Your task to perform on an android device: Clear the cart on walmart. Add "logitech g pro" to the cart on walmart, then select checkout. Image 0: 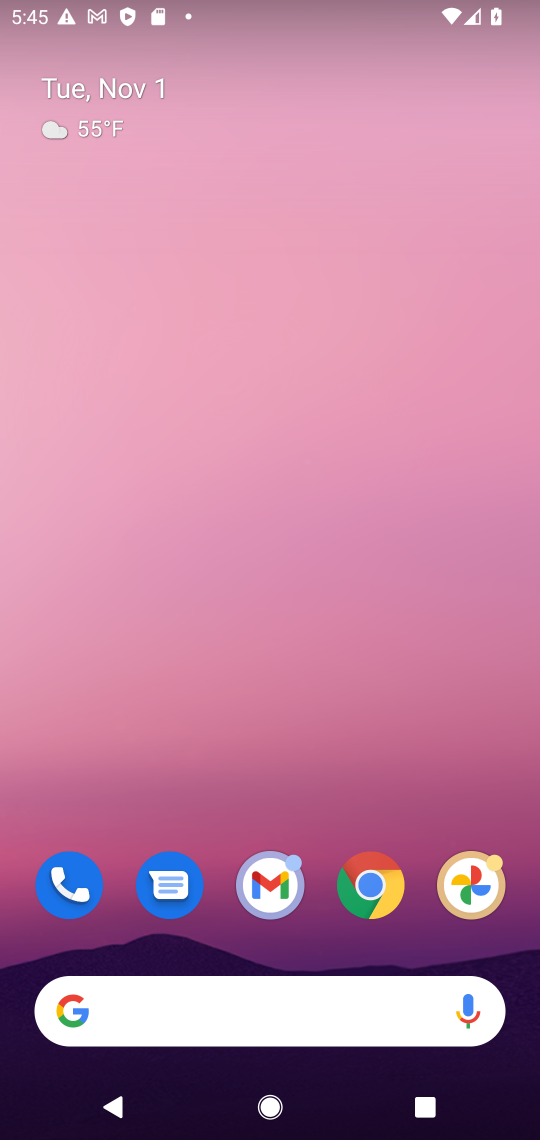
Step 0: click (371, 878)
Your task to perform on an android device: Clear the cart on walmart. Add "logitech g pro" to the cart on walmart, then select checkout. Image 1: 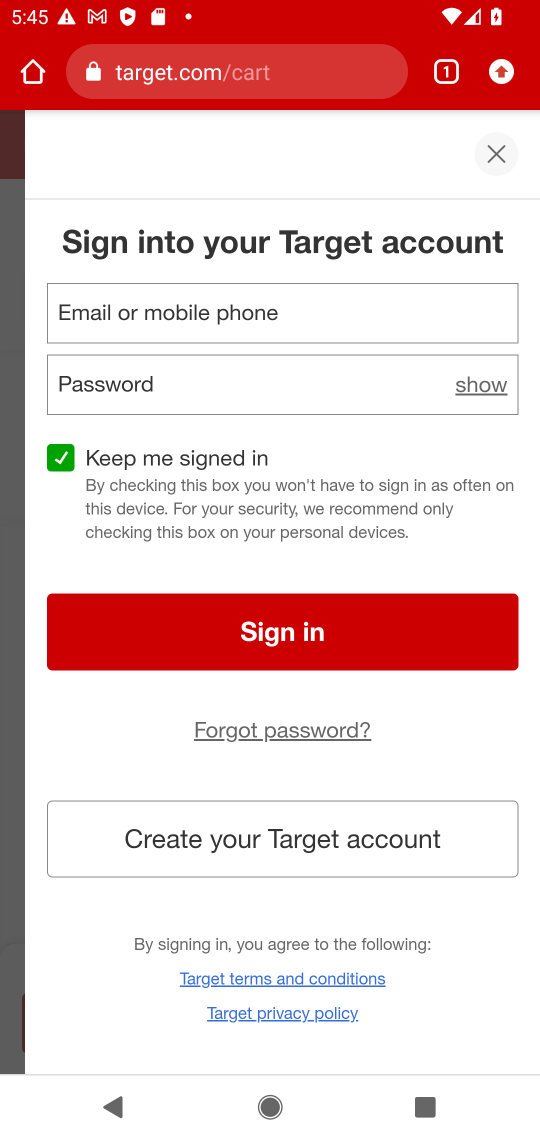
Step 1: click (291, 53)
Your task to perform on an android device: Clear the cart on walmart. Add "logitech g pro" to the cart on walmart, then select checkout. Image 2: 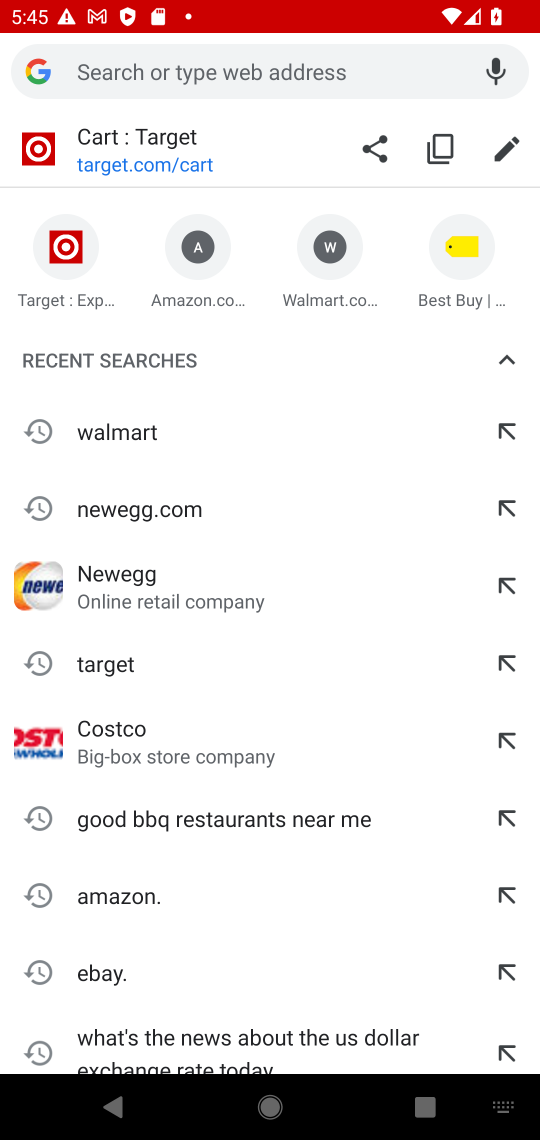
Step 2: type "walmart"
Your task to perform on an android device: Clear the cart on walmart. Add "logitech g pro" to the cart on walmart, then select checkout. Image 3: 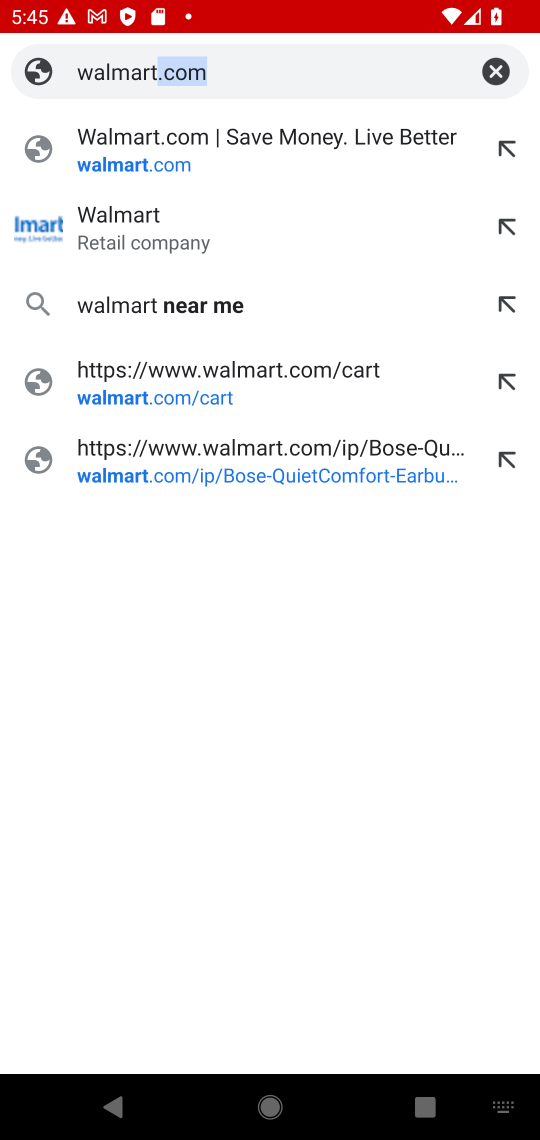
Step 3: click (139, 226)
Your task to perform on an android device: Clear the cart on walmart. Add "logitech g pro" to the cart on walmart, then select checkout. Image 4: 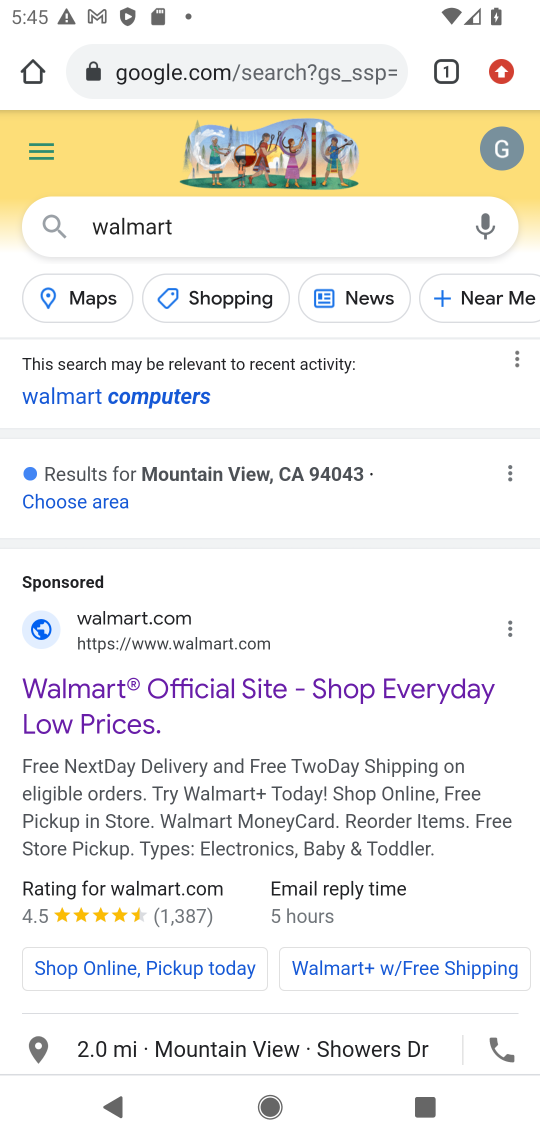
Step 4: click (199, 691)
Your task to perform on an android device: Clear the cart on walmart. Add "logitech g pro" to the cart on walmart, then select checkout. Image 5: 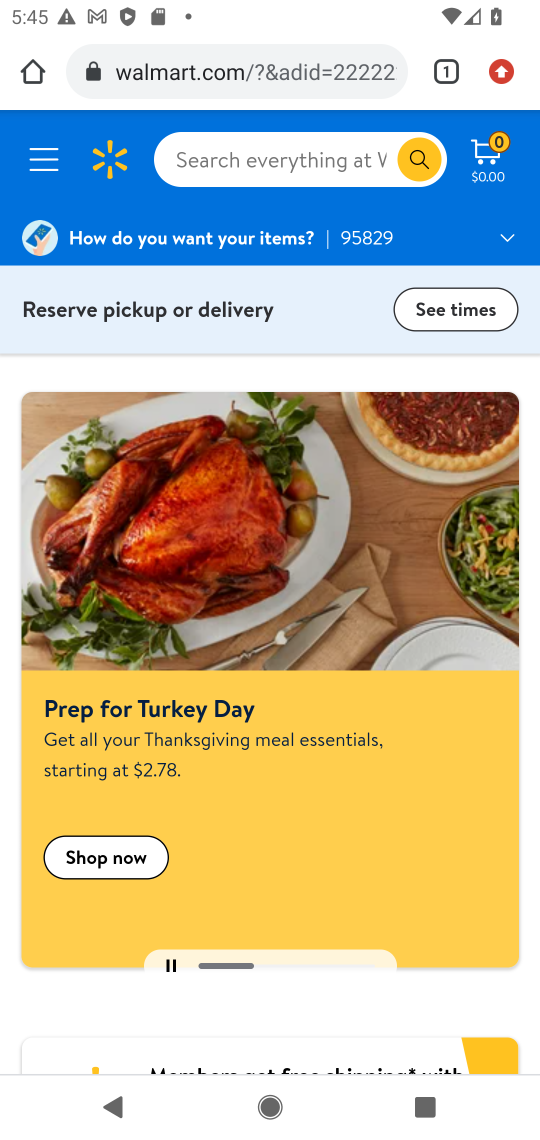
Step 5: click (228, 156)
Your task to perform on an android device: Clear the cart on walmart. Add "logitech g pro" to the cart on walmart, then select checkout. Image 6: 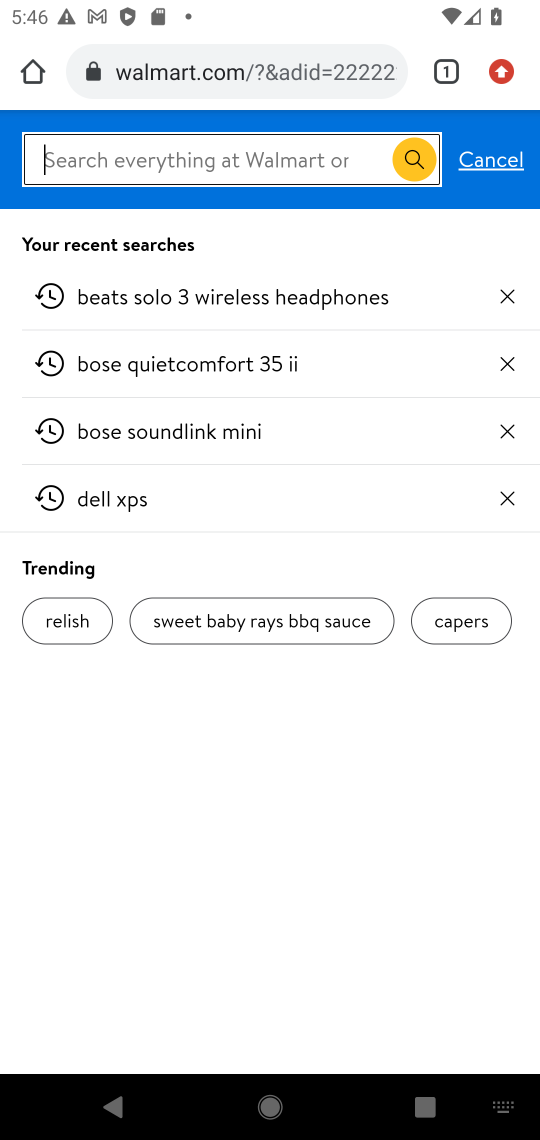
Step 6: type "logitech g pro"
Your task to perform on an android device: Clear the cart on walmart. Add "logitech g pro" to the cart on walmart, then select checkout. Image 7: 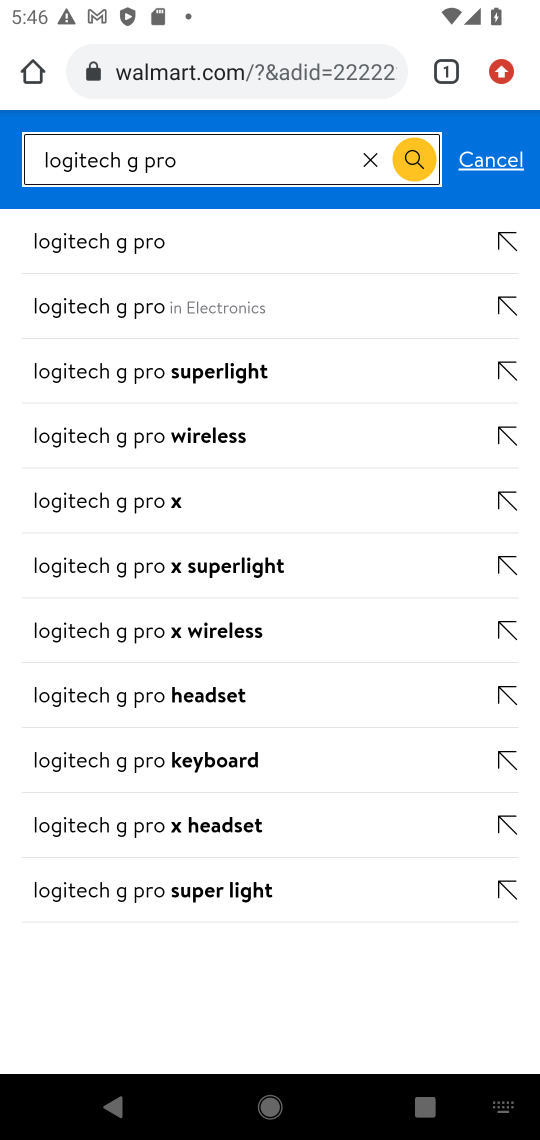
Step 7: click (102, 228)
Your task to perform on an android device: Clear the cart on walmart. Add "logitech g pro" to the cart on walmart, then select checkout. Image 8: 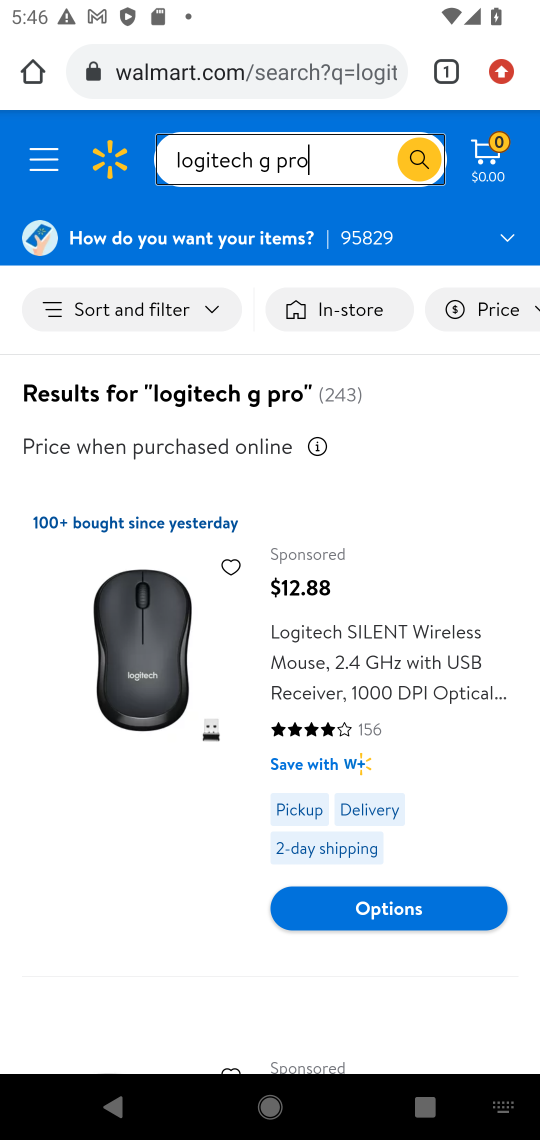
Step 8: drag from (240, 943) to (255, 734)
Your task to perform on an android device: Clear the cart on walmart. Add "logitech g pro" to the cart on walmart, then select checkout. Image 9: 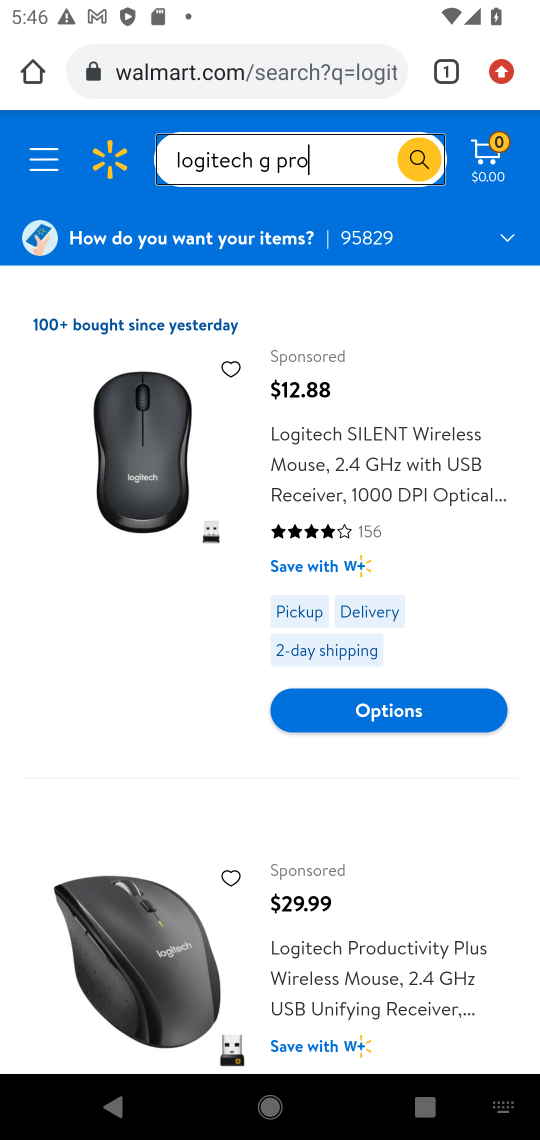
Step 9: drag from (227, 874) to (246, 697)
Your task to perform on an android device: Clear the cart on walmart. Add "logitech g pro" to the cart on walmart, then select checkout. Image 10: 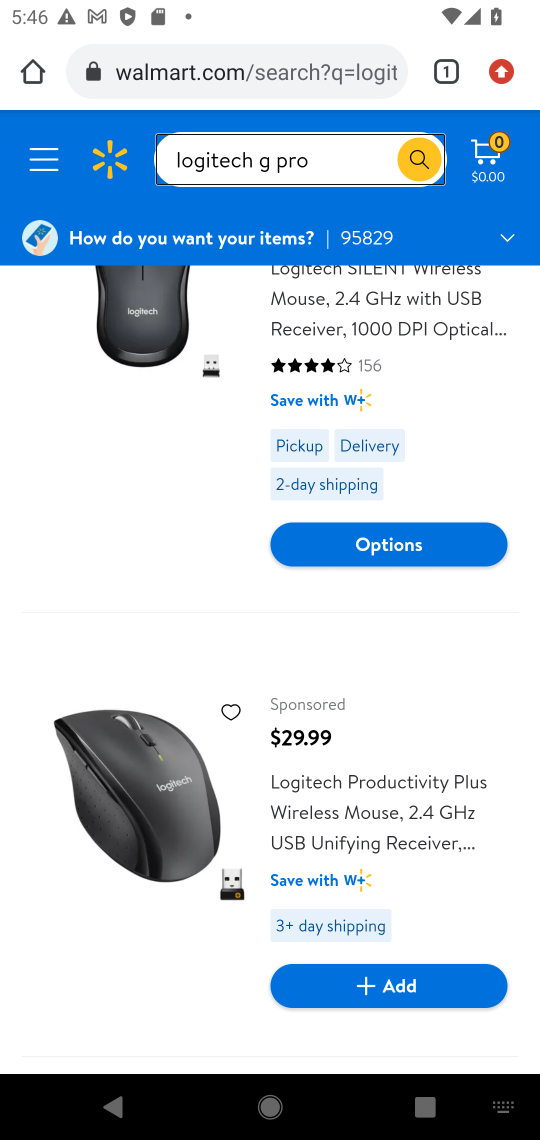
Step 10: drag from (228, 788) to (222, 472)
Your task to perform on an android device: Clear the cart on walmart. Add "logitech g pro" to the cart on walmart, then select checkout. Image 11: 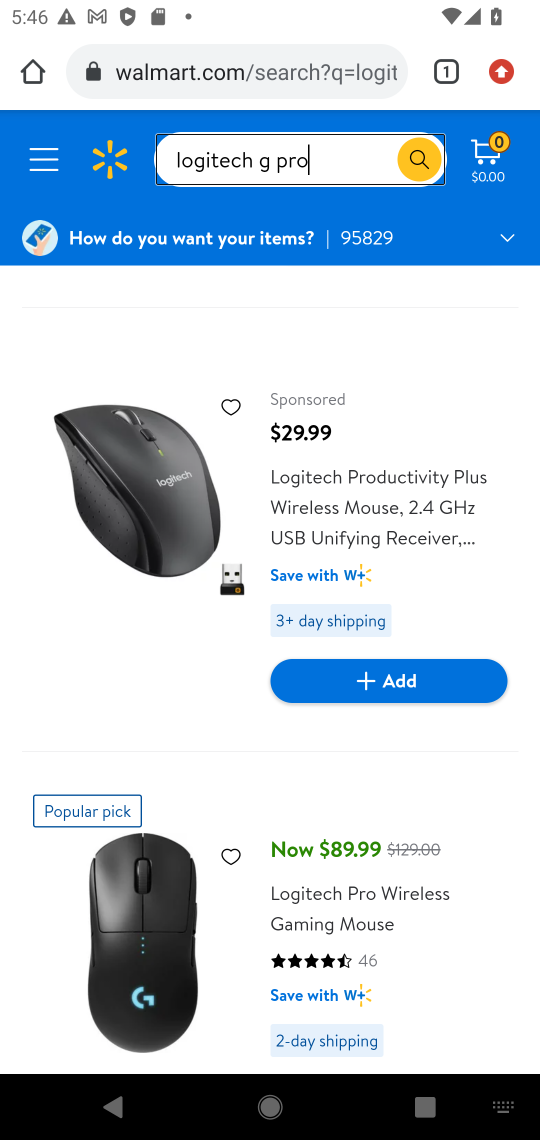
Step 11: drag from (222, 971) to (236, 581)
Your task to perform on an android device: Clear the cart on walmart. Add "logitech g pro" to the cart on walmart, then select checkout. Image 12: 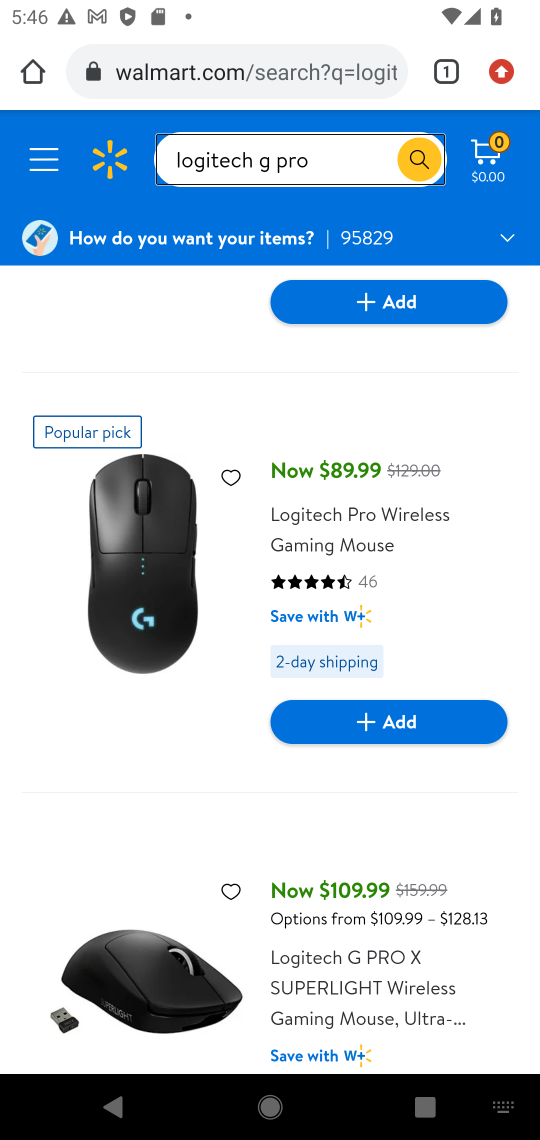
Step 12: drag from (238, 994) to (240, 421)
Your task to perform on an android device: Clear the cart on walmart. Add "logitech g pro" to the cart on walmart, then select checkout. Image 13: 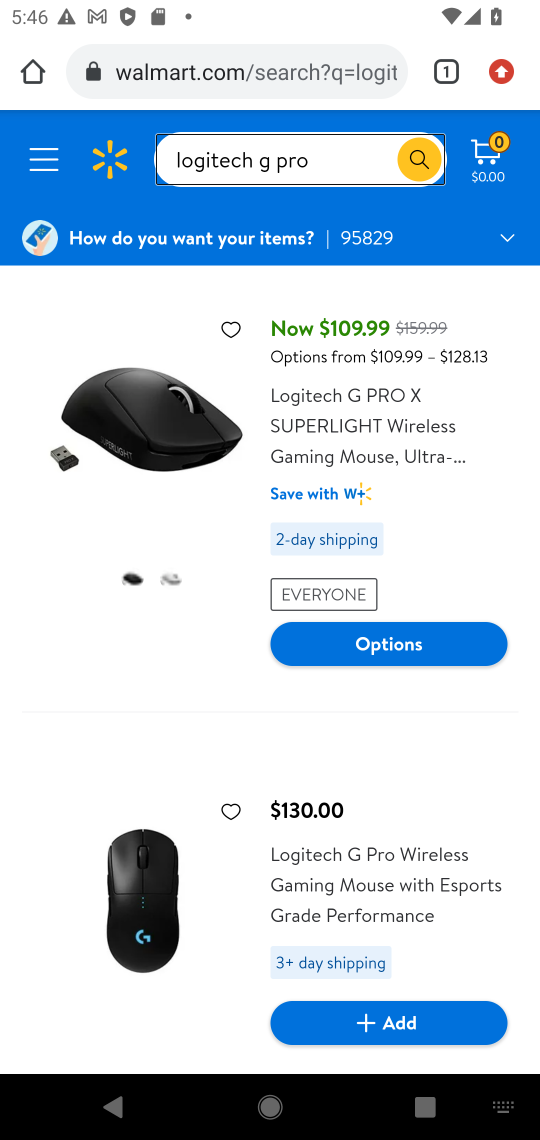
Step 13: click (366, 1023)
Your task to perform on an android device: Clear the cart on walmart. Add "logitech g pro" to the cart on walmart, then select checkout. Image 14: 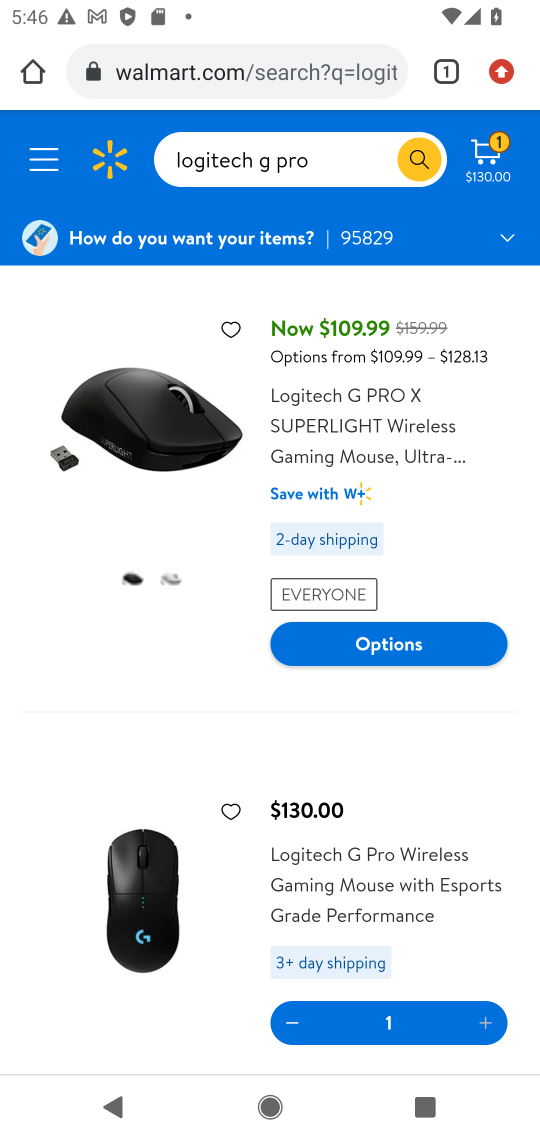
Step 14: click (488, 148)
Your task to perform on an android device: Clear the cart on walmart. Add "logitech g pro" to the cart on walmart, then select checkout. Image 15: 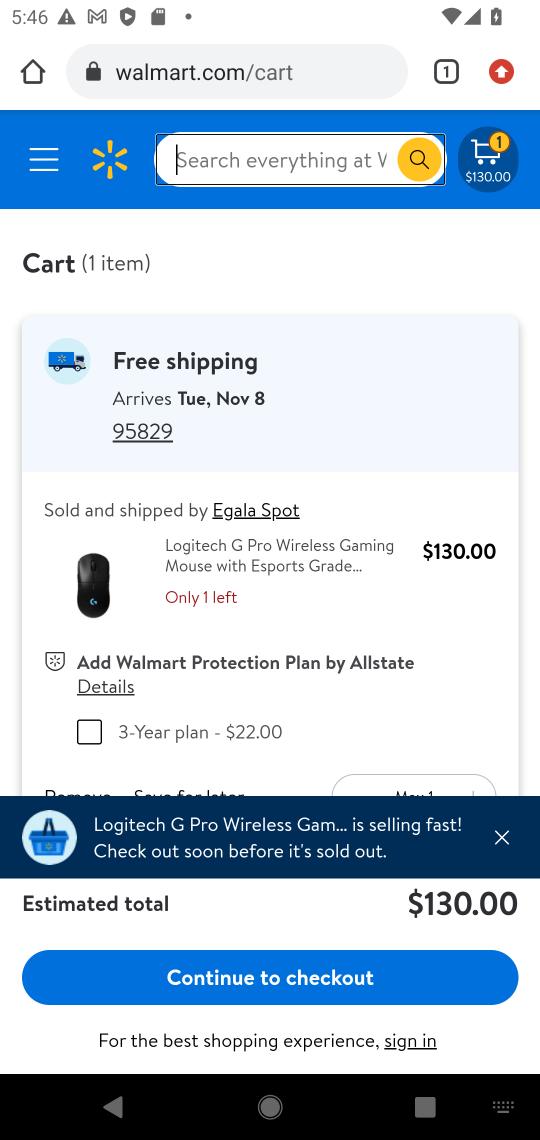
Step 15: click (259, 981)
Your task to perform on an android device: Clear the cart on walmart. Add "logitech g pro" to the cart on walmart, then select checkout. Image 16: 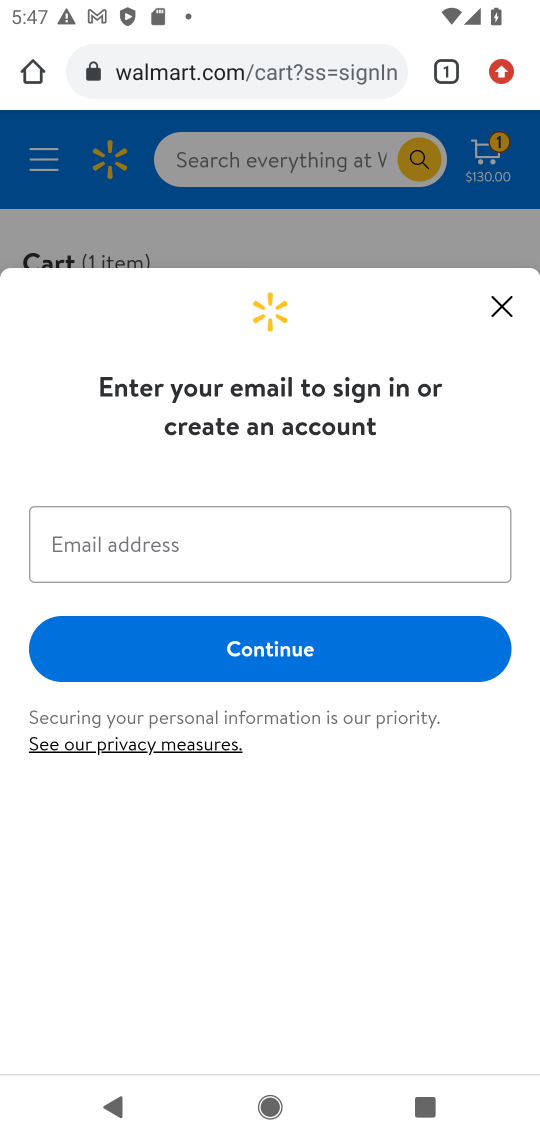
Step 16: task complete